Your task to perform on an android device: turn off data saver in the chrome app Image 0: 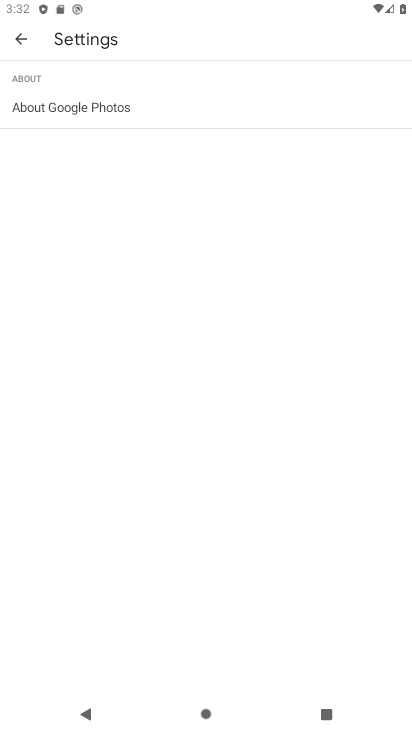
Step 0: click (23, 36)
Your task to perform on an android device: turn off data saver in the chrome app Image 1: 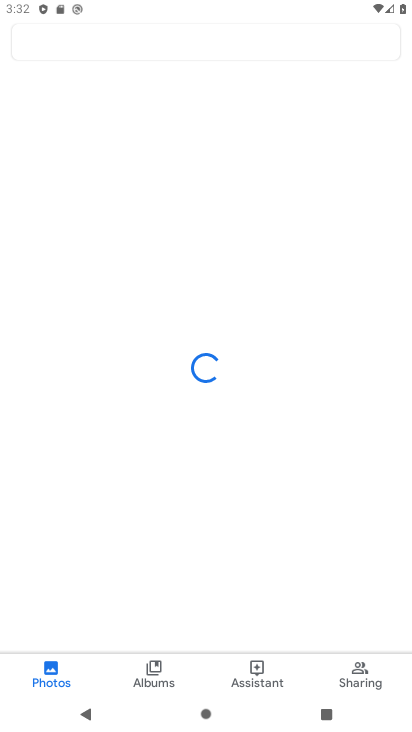
Step 1: press home button
Your task to perform on an android device: turn off data saver in the chrome app Image 2: 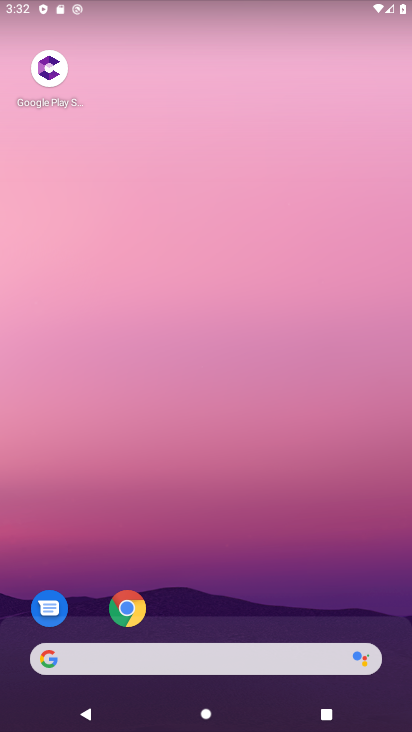
Step 2: click (126, 605)
Your task to perform on an android device: turn off data saver in the chrome app Image 3: 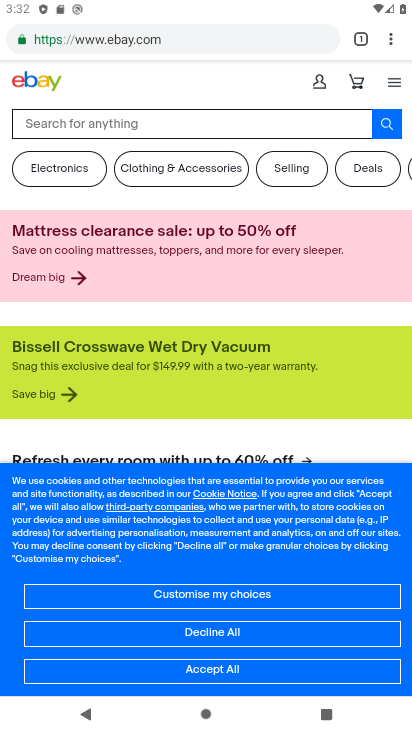
Step 3: click (391, 41)
Your task to perform on an android device: turn off data saver in the chrome app Image 4: 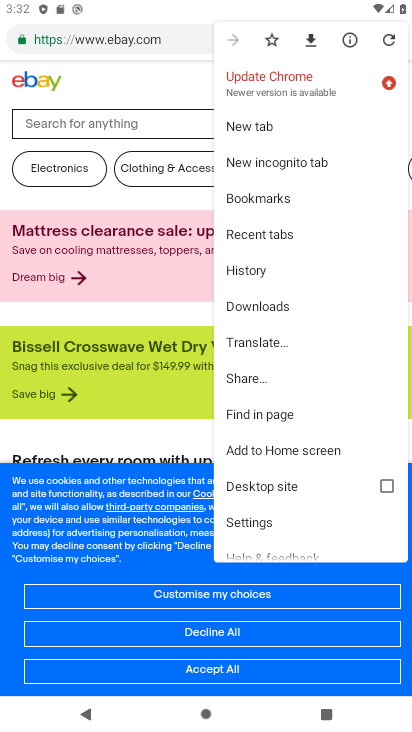
Step 4: click (255, 517)
Your task to perform on an android device: turn off data saver in the chrome app Image 5: 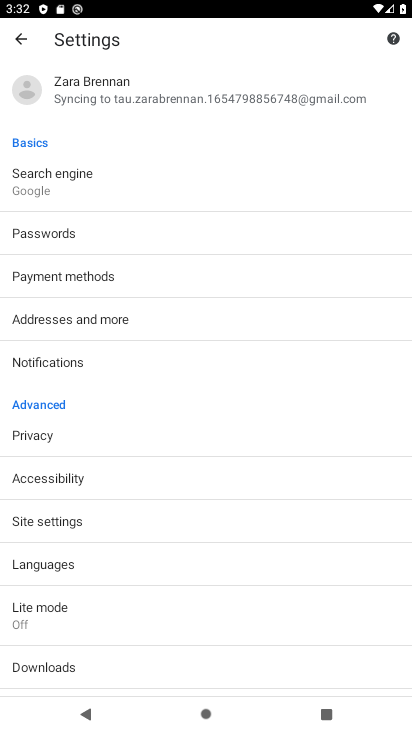
Step 5: click (41, 606)
Your task to perform on an android device: turn off data saver in the chrome app Image 6: 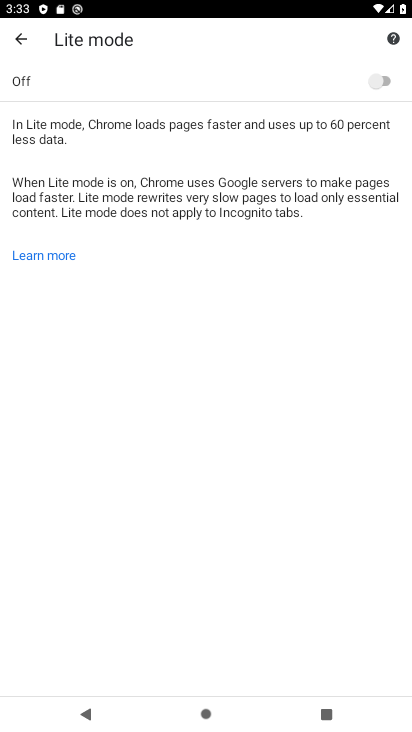
Step 6: task complete